Your task to perform on an android device: Open Chrome and go to settings Image 0: 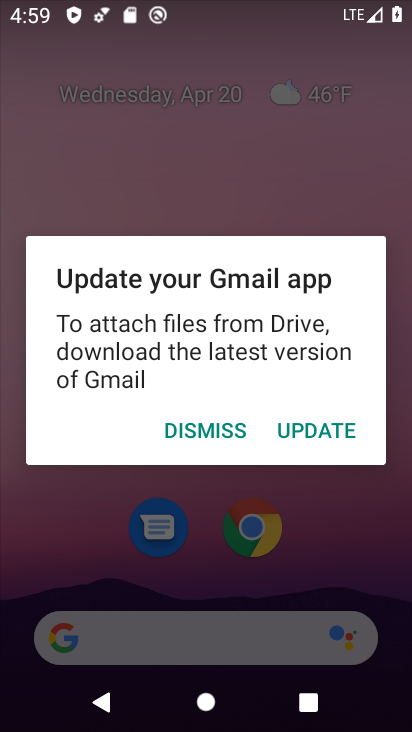
Step 0: press home button
Your task to perform on an android device: Open Chrome and go to settings Image 1: 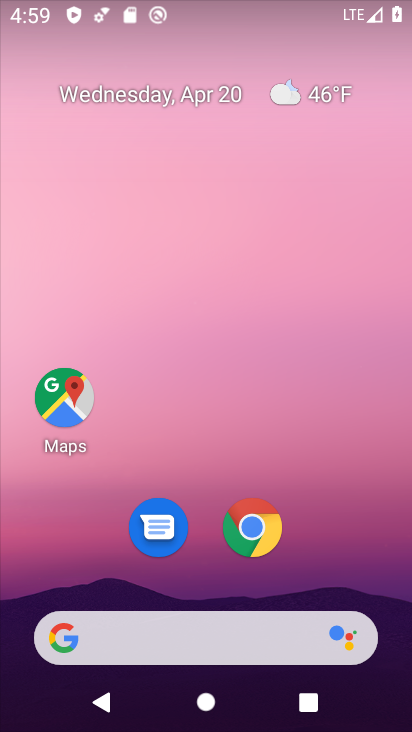
Step 1: click (254, 531)
Your task to perform on an android device: Open Chrome and go to settings Image 2: 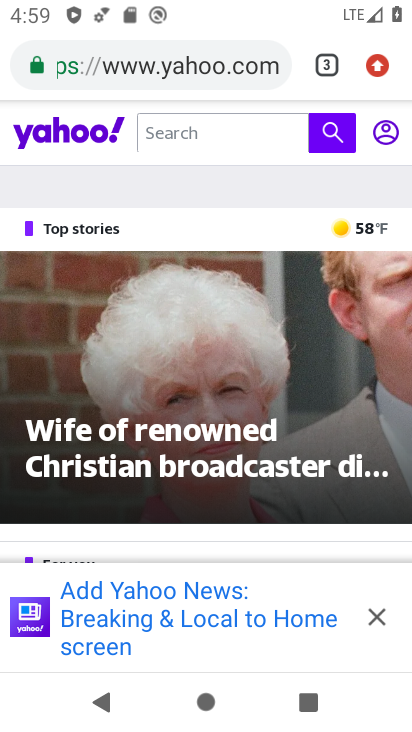
Step 2: click (372, 74)
Your task to perform on an android device: Open Chrome and go to settings Image 3: 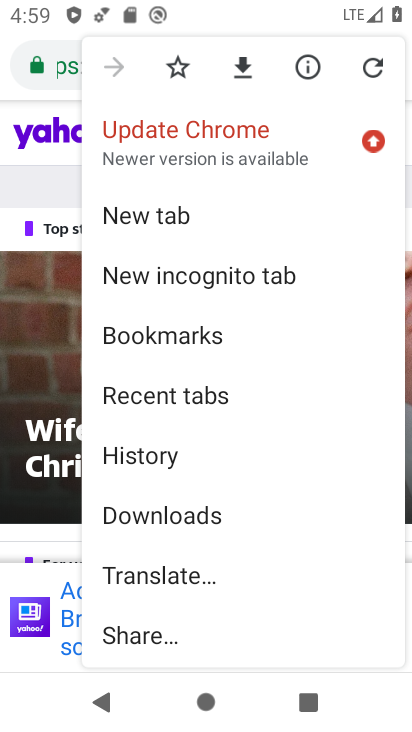
Step 3: drag from (282, 604) to (232, 188)
Your task to perform on an android device: Open Chrome and go to settings Image 4: 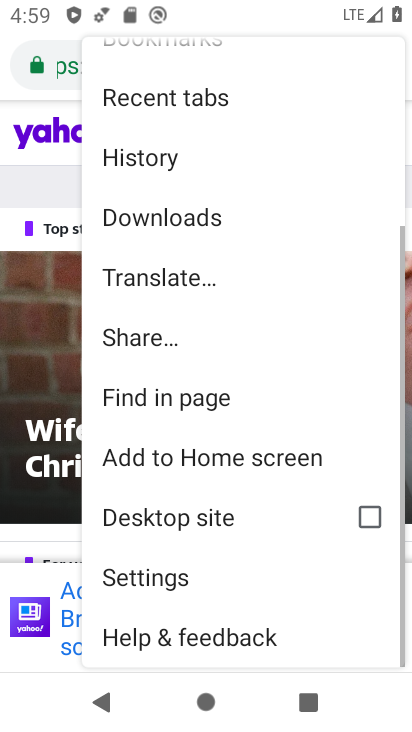
Step 4: click (187, 584)
Your task to perform on an android device: Open Chrome and go to settings Image 5: 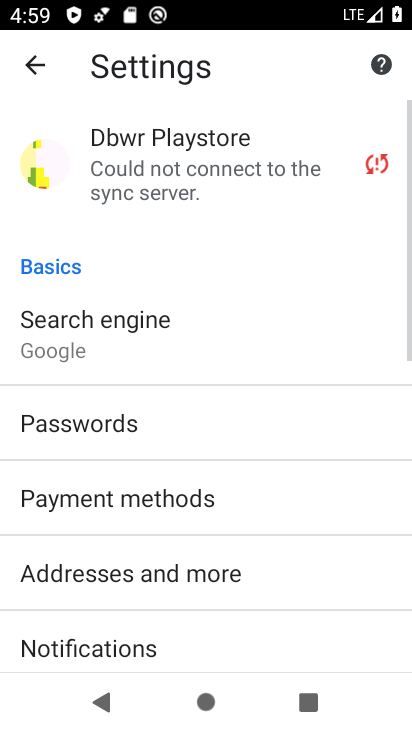
Step 5: task complete